Your task to perform on an android device: Search for Italian restaurants on Maps Image 0: 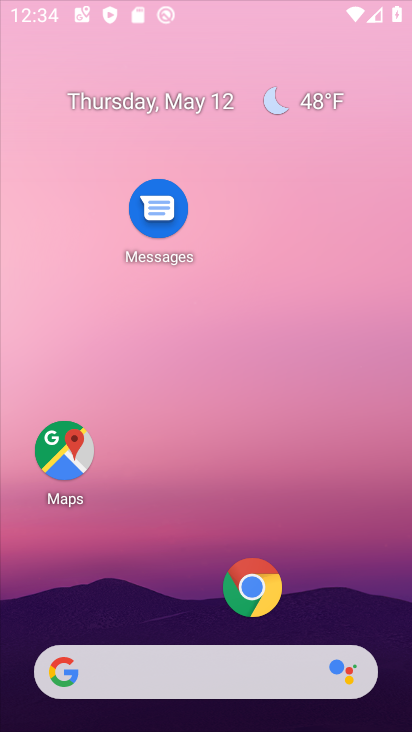
Step 0: press home button
Your task to perform on an android device: Search for Italian restaurants on Maps Image 1: 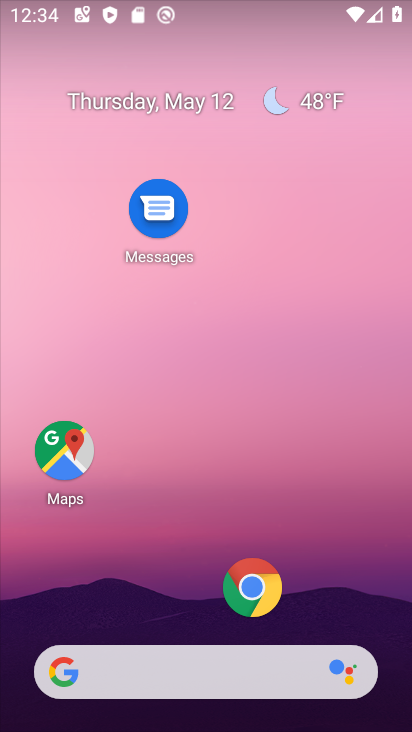
Step 1: click (47, 437)
Your task to perform on an android device: Search for Italian restaurants on Maps Image 2: 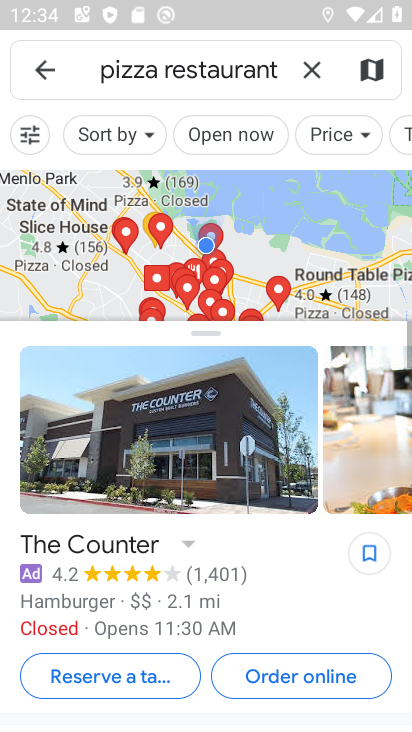
Step 2: click (312, 93)
Your task to perform on an android device: Search for Italian restaurants on Maps Image 3: 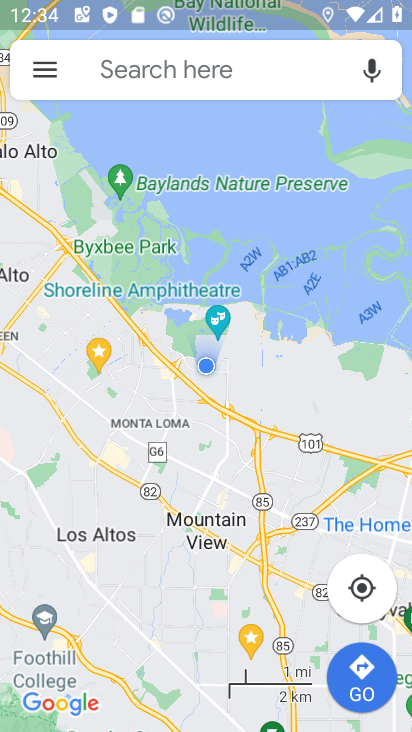
Step 3: click (266, 64)
Your task to perform on an android device: Search for Italian restaurants on Maps Image 4: 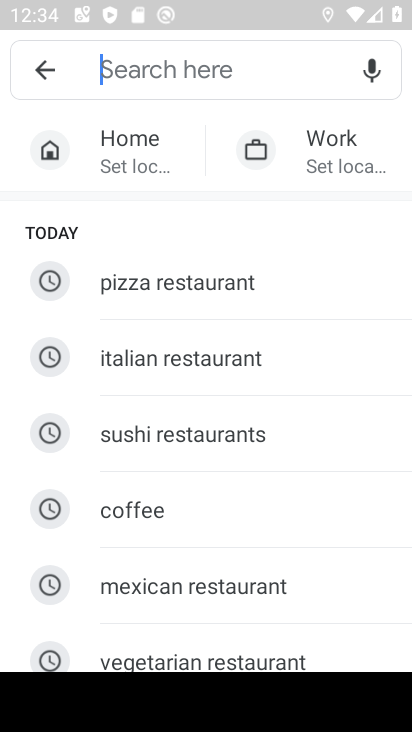
Step 4: click (168, 348)
Your task to perform on an android device: Search for Italian restaurants on Maps Image 5: 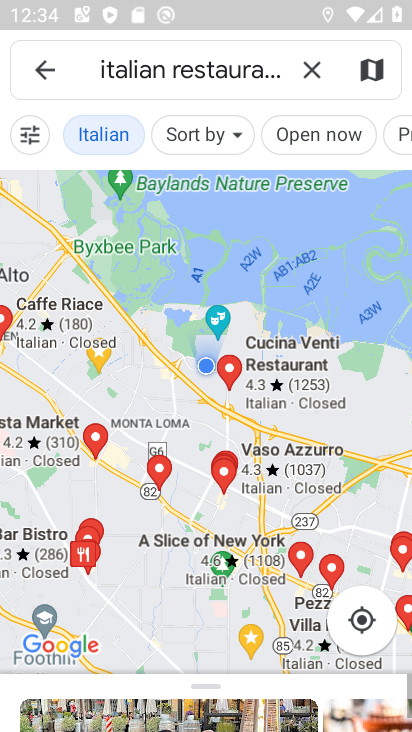
Step 5: task complete